Your task to perform on an android device: turn on javascript in the chrome app Image 0: 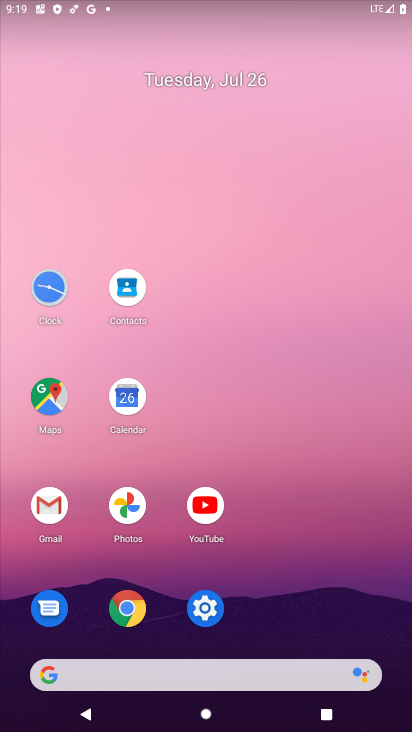
Step 0: click (134, 605)
Your task to perform on an android device: turn on javascript in the chrome app Image 1: 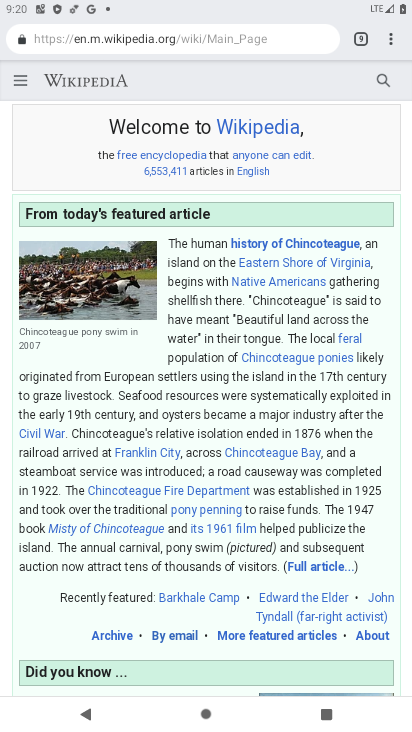
Step 1: click (387, 36)
Your task to perform on an android device: turn on javascript in the chrome app Image 2: 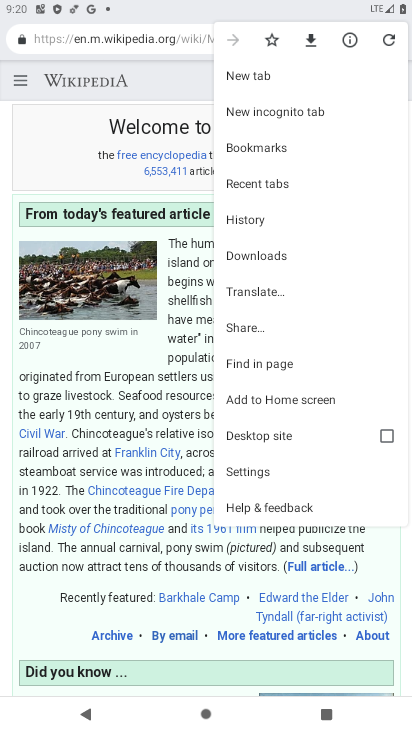
Step 2: click (254, 467)
Your task to perform on an android device: turn on javascript in the chrome app Image 3: 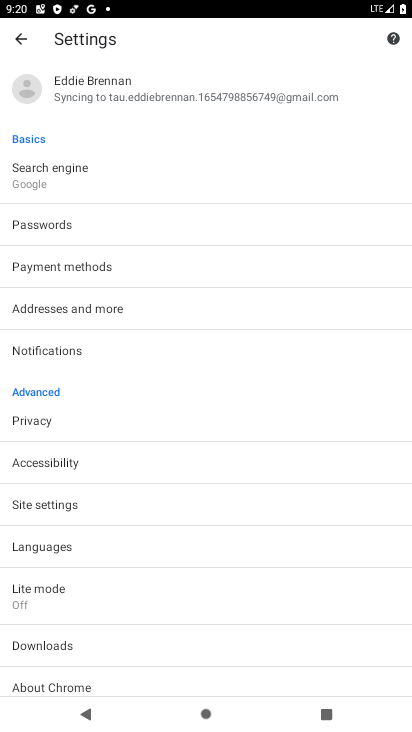
Step 3: click (42, 504)
Your task to perform on an android device: turn on javascript in the chrome app Image 4: 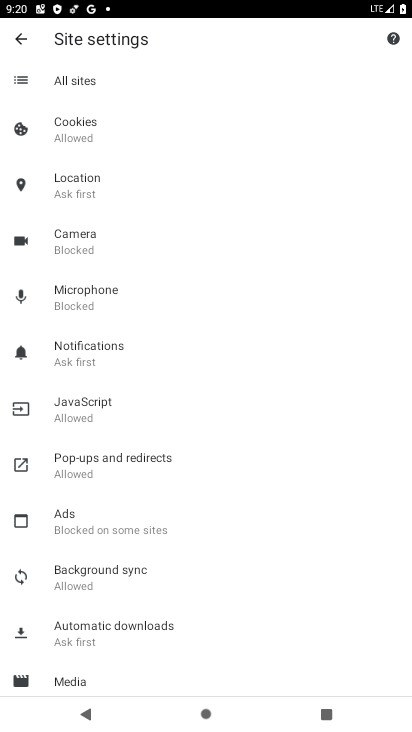
Step 4: click (81, 406)
Your task to perform on an android device: turn on javascript in the chrome app Image 5: 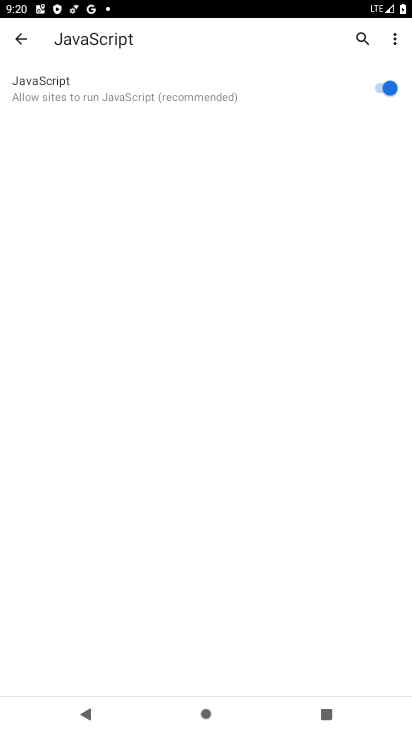
Step 5: task complete